Your task to perform on an android device: Search for macbook pro 15 inch on newegg.com, select the first entry, and add it to the cart. Image 0: 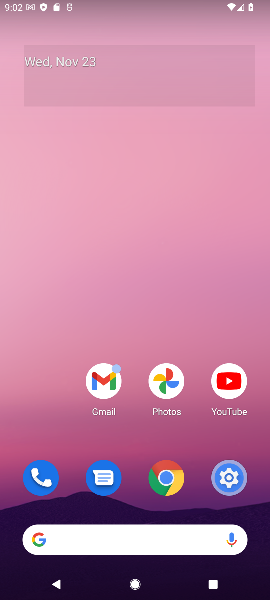
Step 0: click (115, 540)
Your task to perform on an android device: Search for macbook pro 15 inch on newegg.com, select the first entry, and add it to the cart. Image 1: 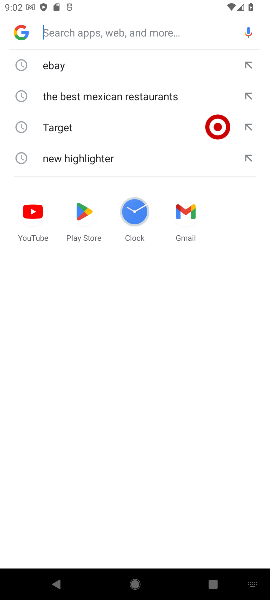
Step 1: type "newegg"
Your task to perform on an android device: Search for macbook pro 15 inch on newegg.com, select the first entry, and add it to the cart. Image 2: 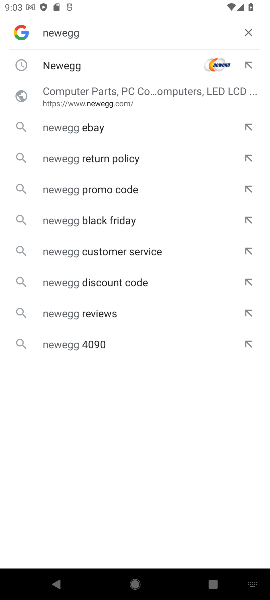
Step 2: click (73, 73)
Your task to perform on an android device: Search for macbook pro 15 inch on newegg.com, select the first entry, and add it to the cart. Image 3: 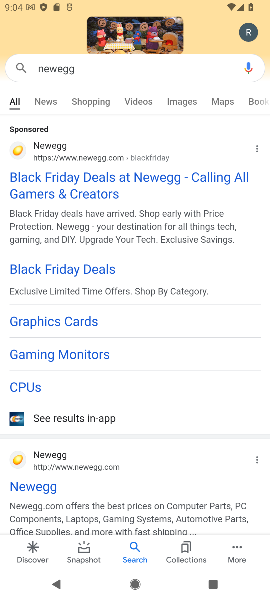
Step 3: click (99, 194)
Your task to perform on an android device: Search for macbook pro 15 inch on newegg.com, select the first entry, and add it to the cart. Image 4: 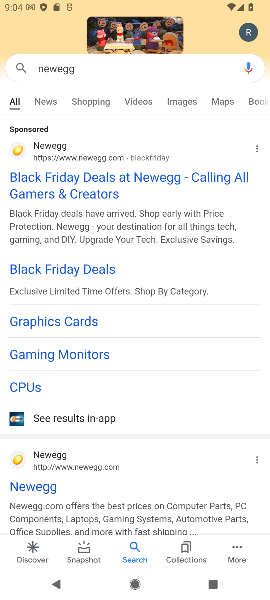
Step 4: task complete